Your task to perform on an android device: Open Maps and search for coffee Image 0: 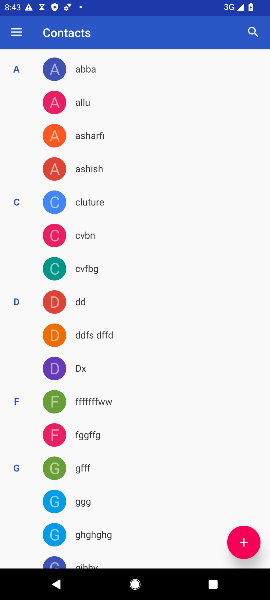
Step 0: press home button
Your task to perform on an android device: Open Maps and search for coffee Image 1: 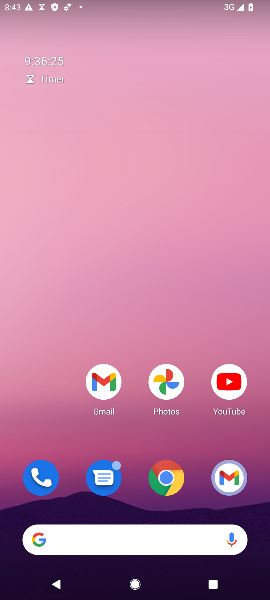
Step 1: drag from (194, 346) to (161, 0)
Your task to perform on an android device: Open Maps and search for coffee Image 2: 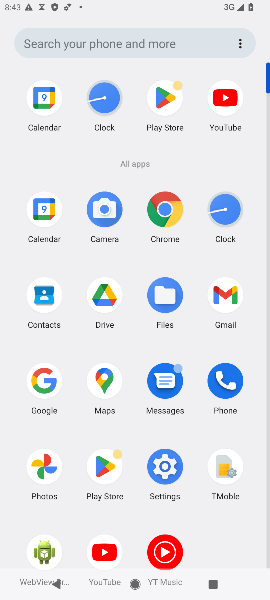
Step 2: click (107, 386)
Your task to perform on an android device: Open Maps and search for coffee Image 3: 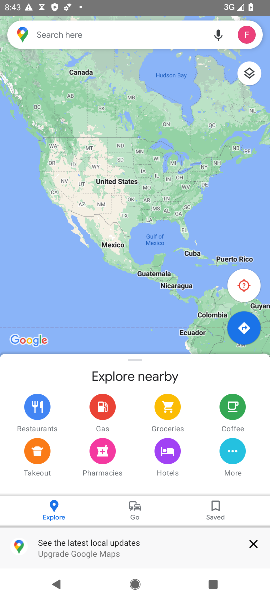
Step 3: click (114, 35)
Your task to perform on an android device: Open Maps and search for coffee Image 4: 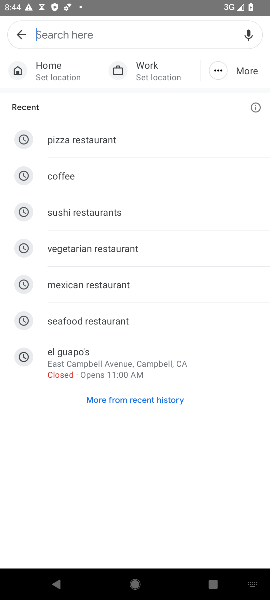
Step 4: click (95, 181)
Your task to perform on an android device: Open Maps and search for coffee Image 5: 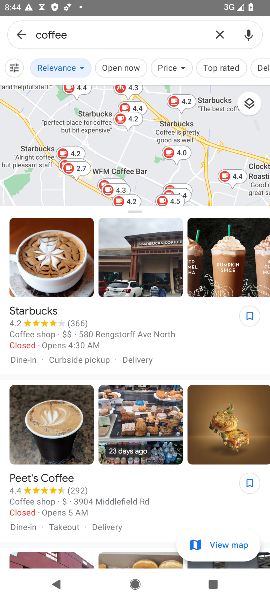
Step 5: task complete